Your task to perform on an android device: Show me recent news Image 0: 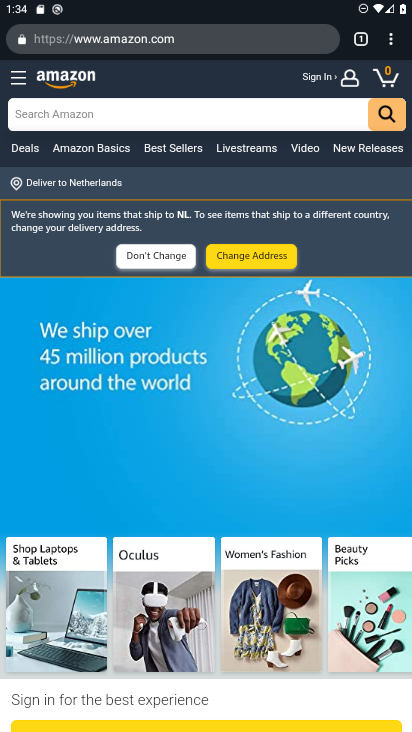
Step 0: click (203, 52)
Your task to perform on an android device: Show me recent news Image 1: 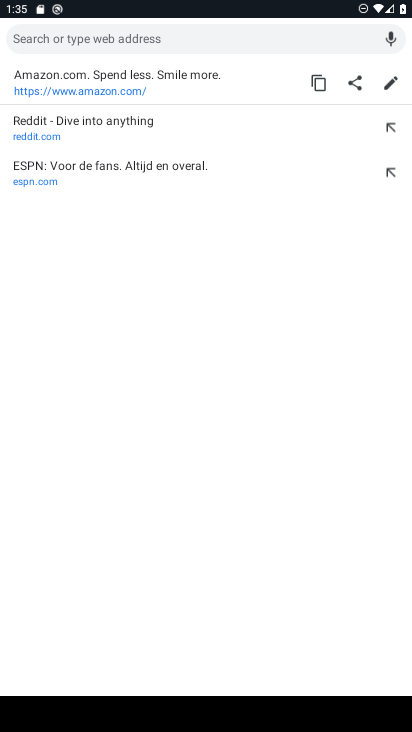
Step 1: type "recent news"
Your task to perform on an android device: Show me recent news Image 2: 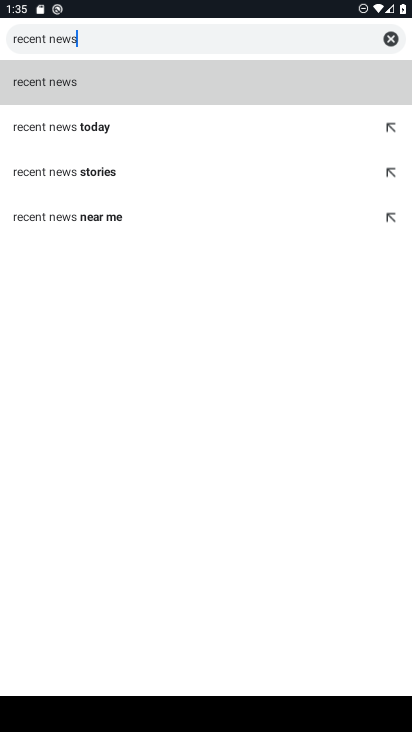
Step 2: click (20, 81)
Your task to perform on an android device: Show me recent news Image 3: 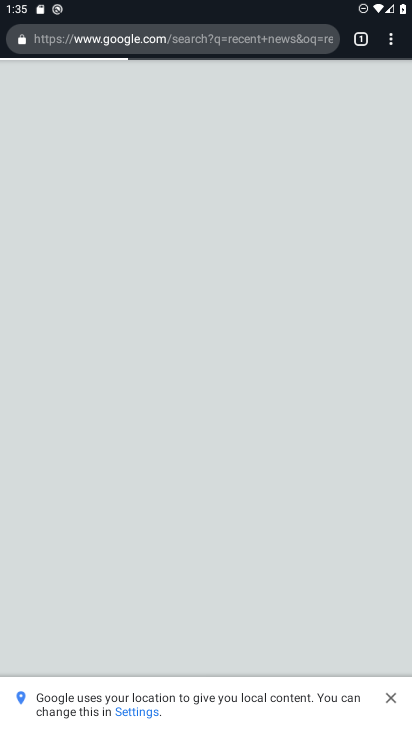
Step 3: task complete